Your task to perform on an android device: Open ESPN.com Image 0: 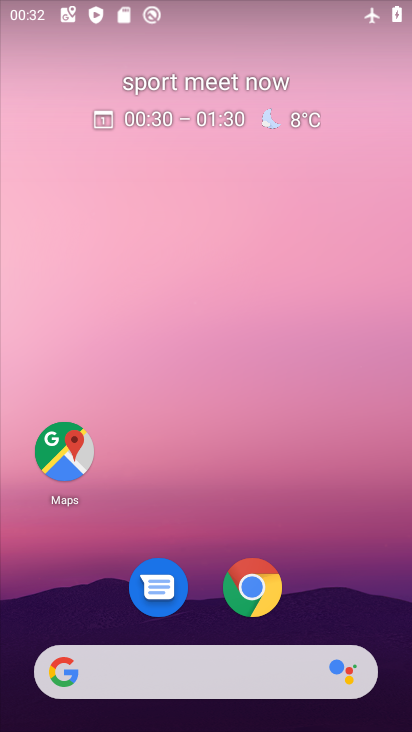
Step 0: click (247, 580)
Your task to perform on an android device: Open ESPN.com Image 1: 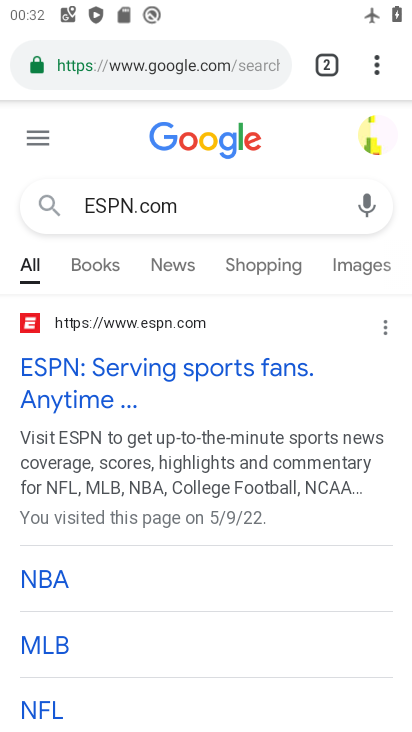
Step 1: click (282, 62)
Your task to perform on an android device: Open ESPN.com Image 2: 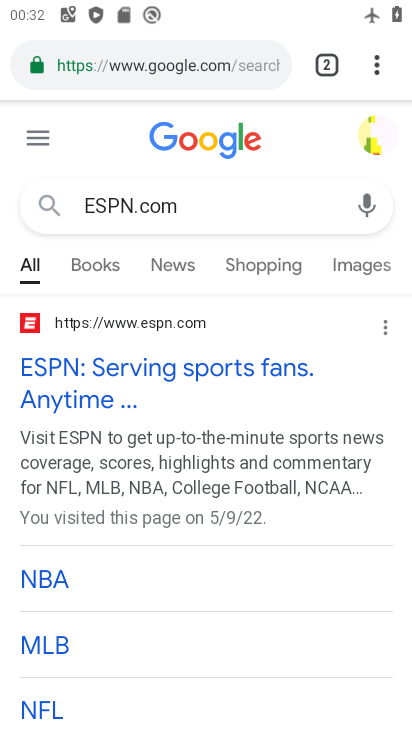
Step 2: click (280, 64)
Your task to perform on an android device: Open ESPN.com Image 3: 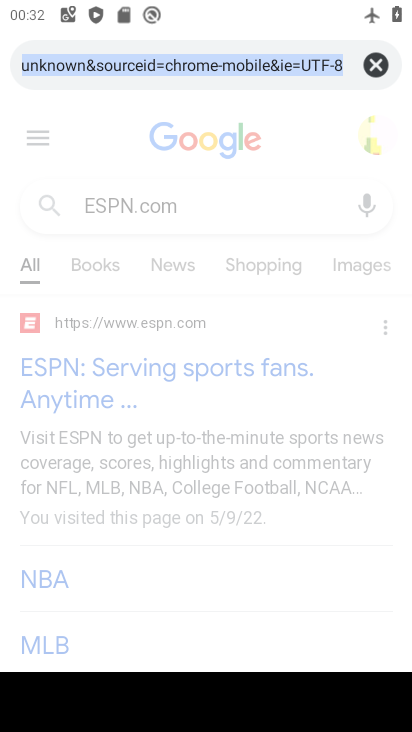
Step 3: click (369, 59)
Your task to perform on an android device: Open ESPN.com Image 4: 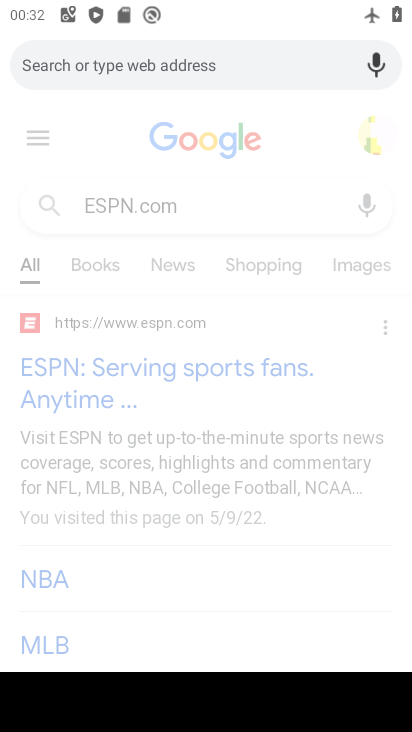
Step 4: type "ESPN.com"
Your task to perform on an android device: Open ESPN.com Image 5: 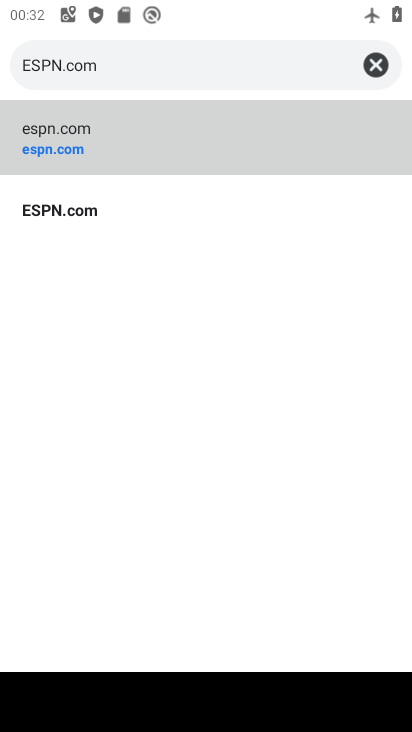
Step 5: click (71, 210)
Your task to perform on an android device: Open ESPN.com Image 6: 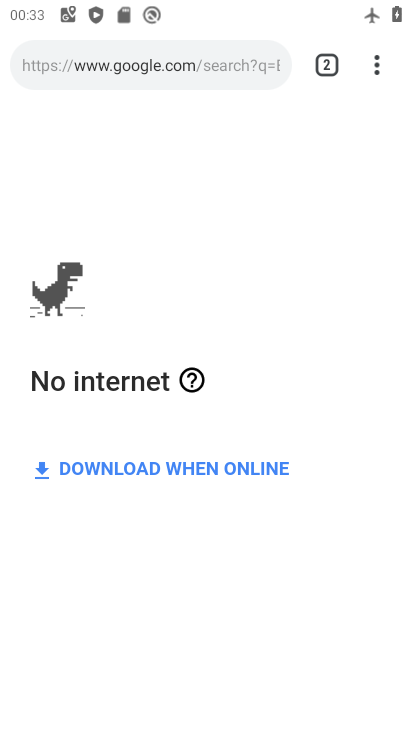
Step 6: task complete